Your task to perform on an android device: Go to Google maps Image 0: 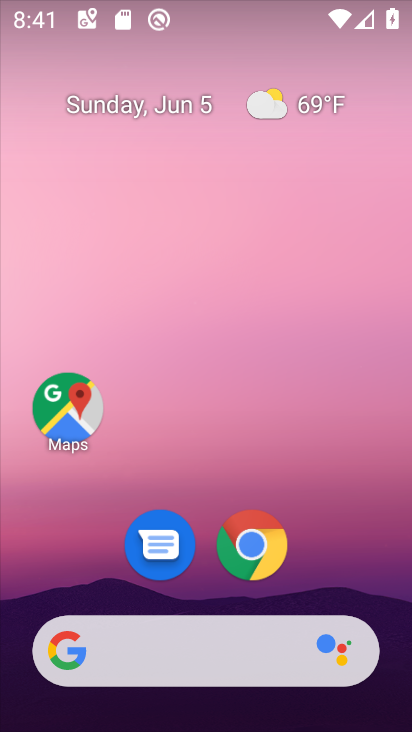
Step 0: drag from (369, 578) to (372, 245)
Your task to perform on an android device: Go to Google maps Image 1: 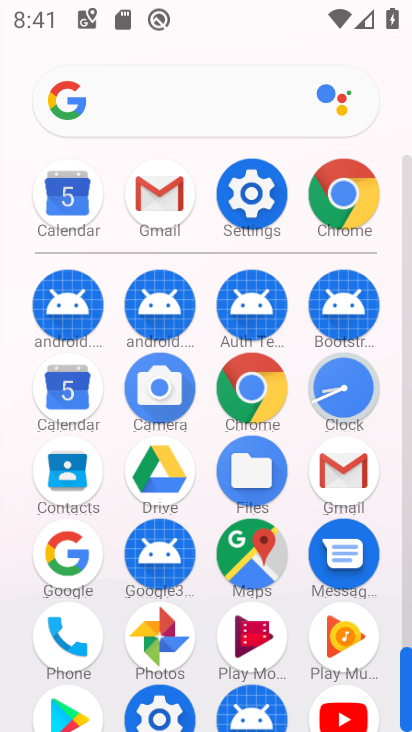
Step 1: click (262, 550)
Your task to perform on an android device: Go to Google maps Image 2: 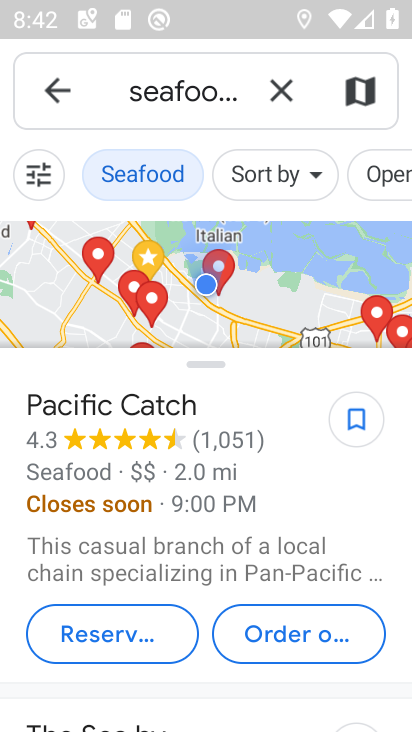
Step 2: task complete